Your task to perform on an android device: Clear all items from cart on walmart. Search for rayovac triple a on walmart, select the first entry, and add it to the cart. Image 0: 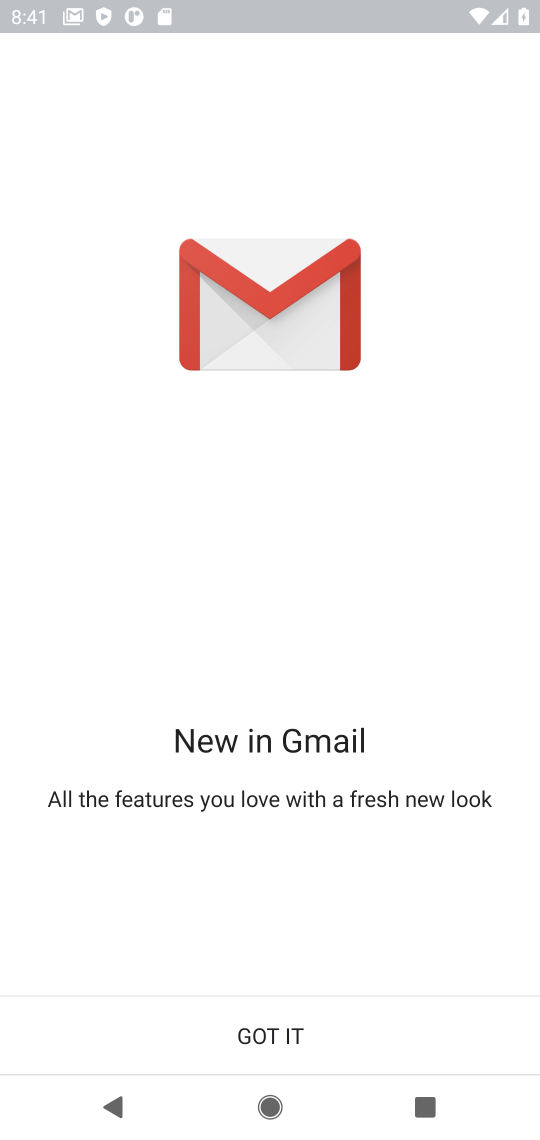
Step 0: press home button
Your task to perform on an android device: Clear all items from cart on walmart. Search for rayovac triple a on walmart, select the first entry, and add it to the cart. Image 1: 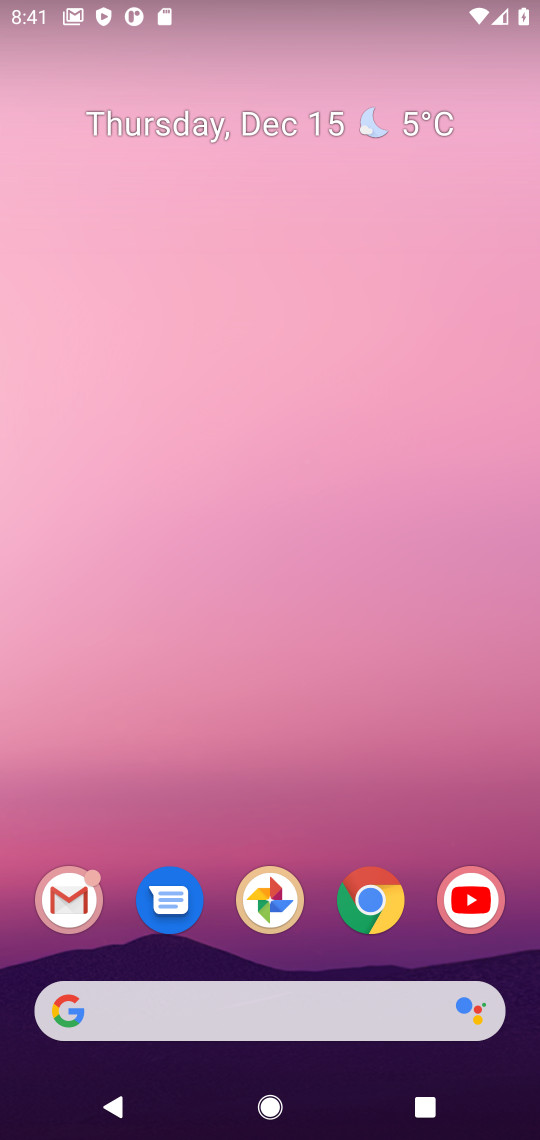
Step 1: click (384, 903)
Your task to perform on an android device: Clear all items from cart on walmart. Search for rayovac triple a on walmart, select the first entry, and add it to the cart. Image 2: 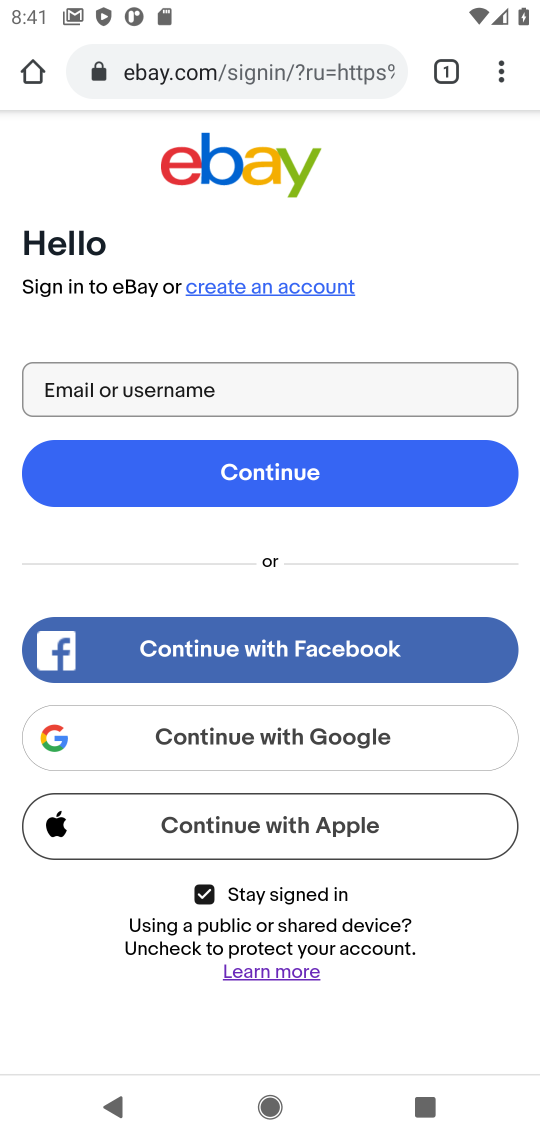
Step 2: click (166, 77)
Your task to perform on an android device: Clear all items from cart on walmart. Search for rayovac triple a on walmart, select the first entry, and add it to the cart. Image 3: 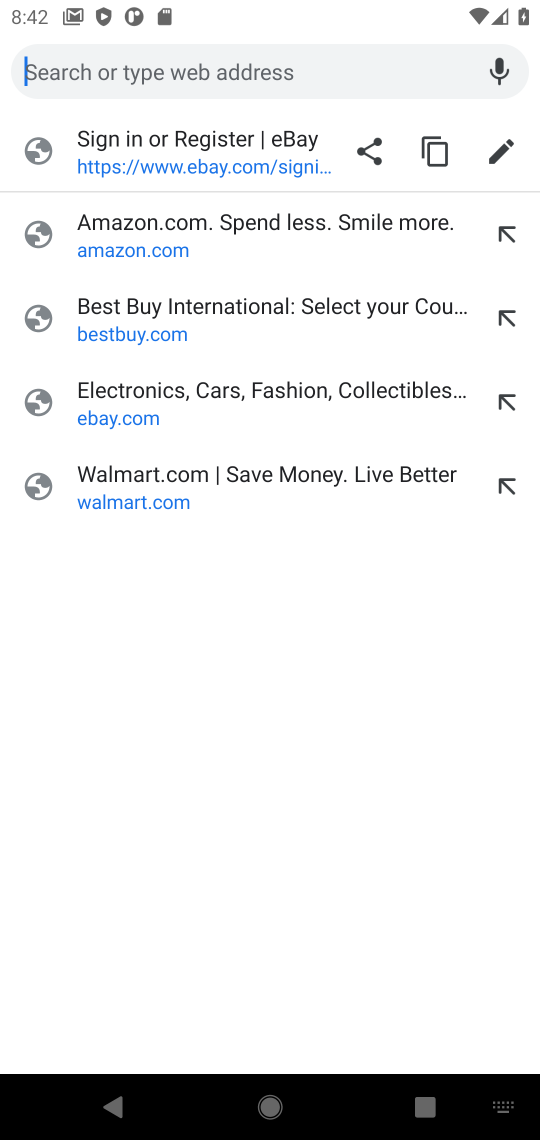
Step 3: type "walmart"
Your task to perform on an android device: Clear all items from cart on walmart. Search for rayovac triple a on walmart, select the first entry, and add it to the cart. Image 4: 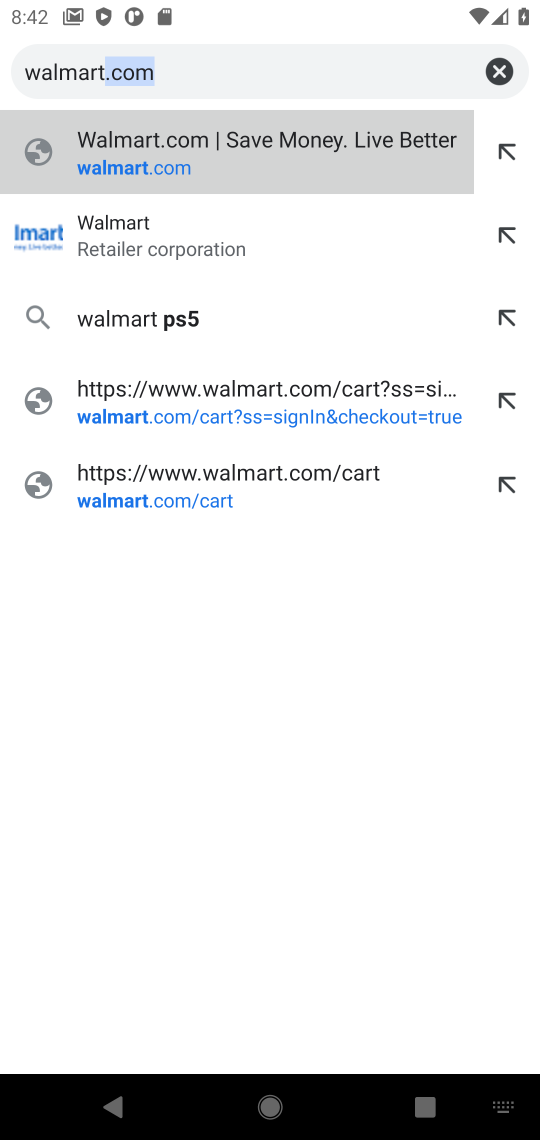
Step 4: click (235, 157)
Your task to perform on an android device: Clear all items from cart on walmart. Search for rayovac triple a on walmart, select the first entry, and add it to the cart. Image 5: 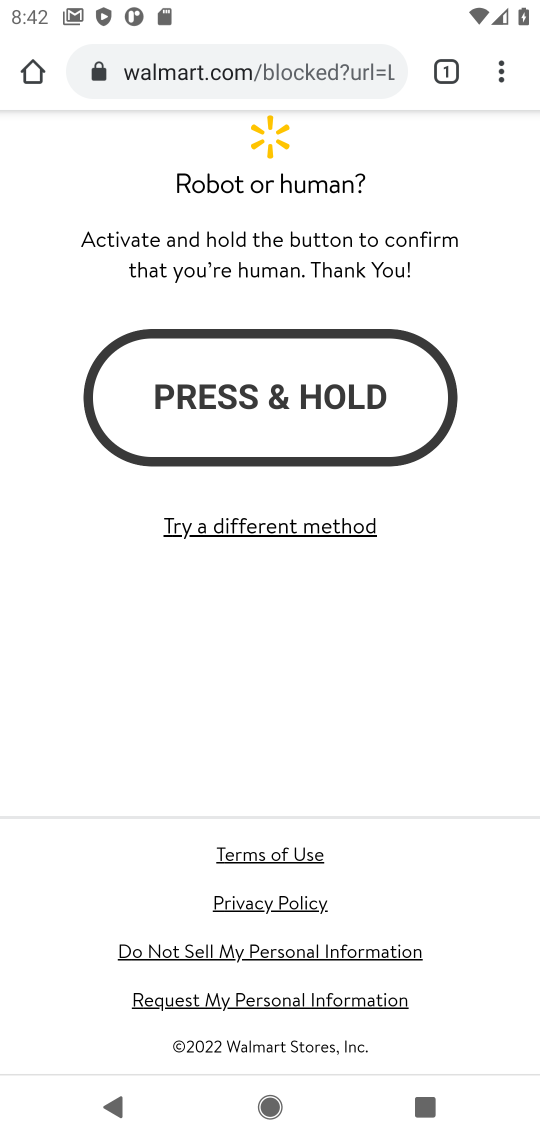
Step 5: click (245, 431)
Your task to perform on an android device: Clear all items from cart on walmart. Search for rayovac triple a on walmart, select the first entry, and add it to the cart. Image 6: 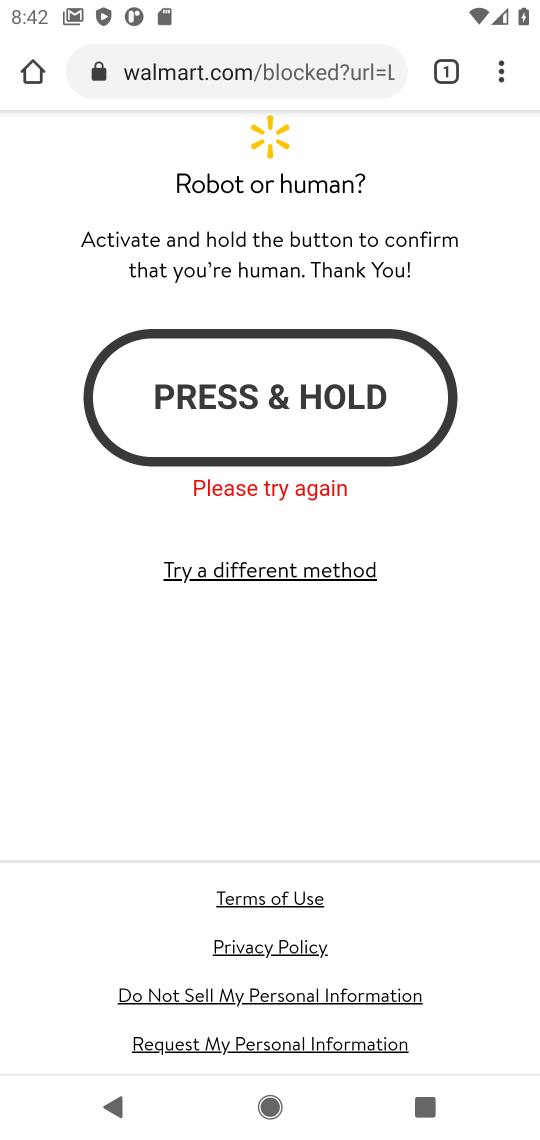
Step 6: click (239, 406)
Your task to perform on an android device: Clear all items from cart on walmart. Search for rayovac triple a on walmart, select the first entry, and add it to the cart. Image 7: 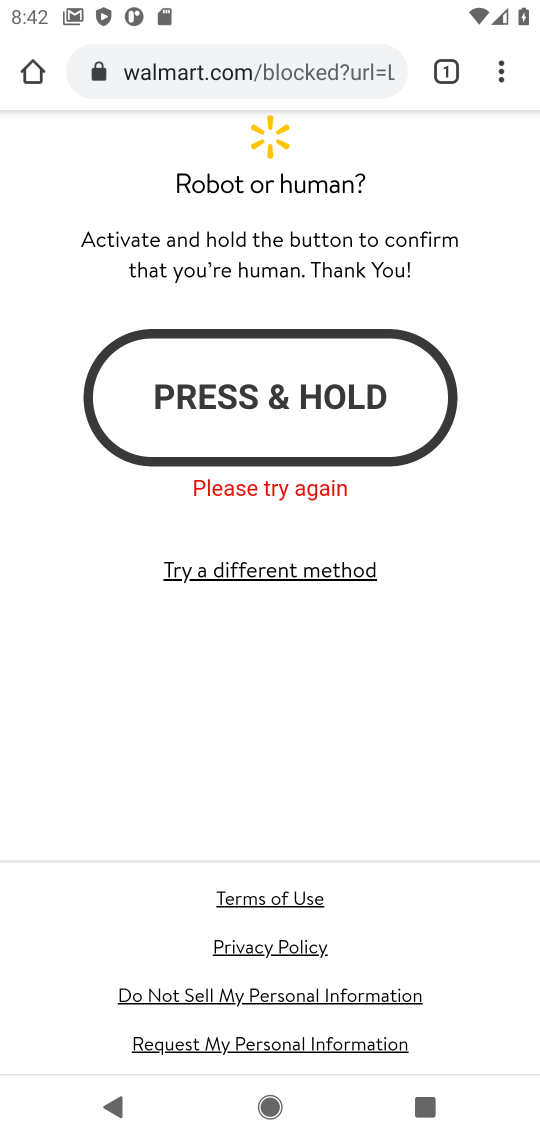
Step 7: task complete